Your task to perform on an android device: install app "DoorDash - Food Delivery" Image 0: 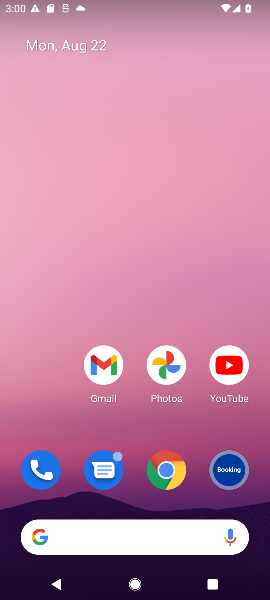
Step 0: drag from (92, 509) to (198, 11)
Your task to perform on an android device: install app "DoorDash - Food Delivery" Image 1: 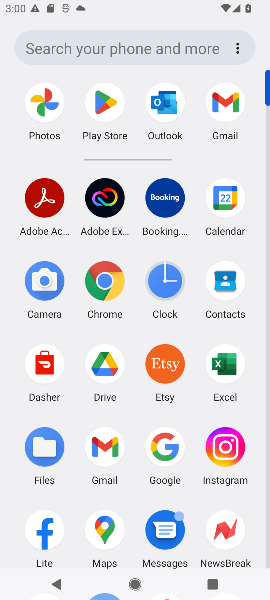
Step 1: drag from (121, 527) to (117, 91)
Your task to perform on an android device: install app "DoorDash - Food Delivery" Image 2: 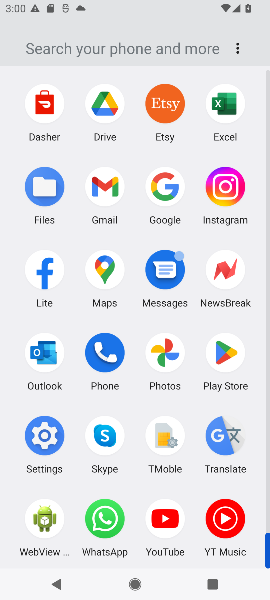
Step 2: drag from (106, 502) to (124, 165)
Your task to perform on an android device: install app "DoorDash - Food Delivery" Image 3: 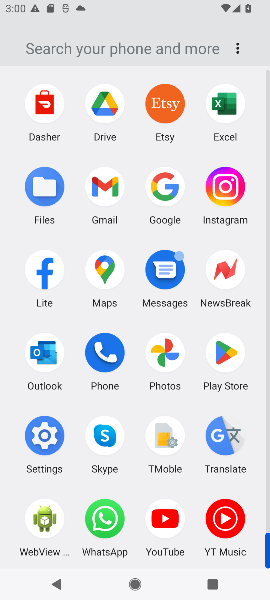
Step 3: drag from (112, 92) to (125, 571)
Your task to perform on an android device: install app "DoorDash - Food Delivery" Image 4: 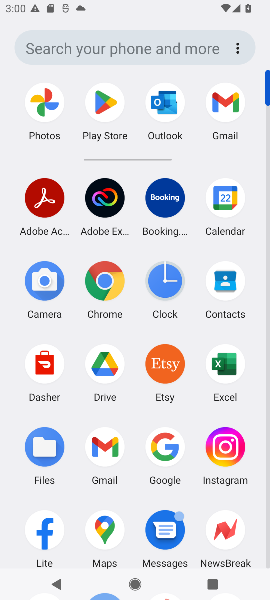
Step 4: drag from (130, 105) to (119, 362)
Your task to perform on an android device: install app "DoorDash - Food Delivery" Image 5: 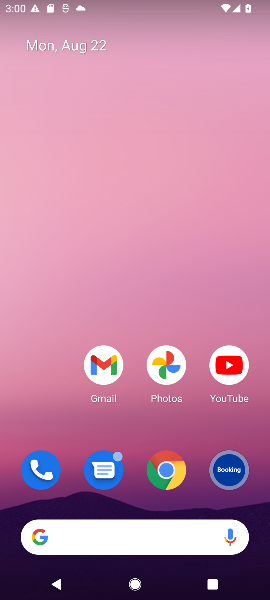
Step 5: drag from (131, 518) to (132, 102)
Your task to perform on an android device: install app "DoorDash - Food Delivery" Image 6: 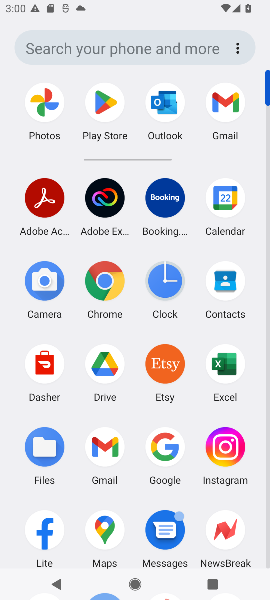
Step 6: click (101, 91)
Your task to perform on an android device: install app "DoorDash - Food Delivery" Image 7: 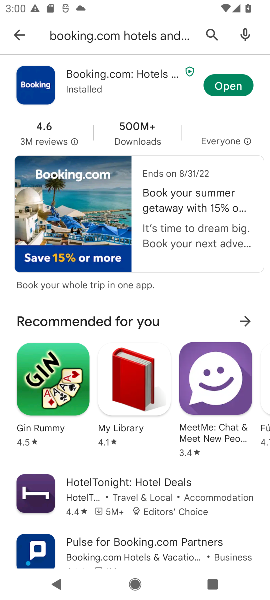
Step 7: click (20, 30)
Your task to perform on an android device: install app "DoorDash - Food Delivery" Image 8: 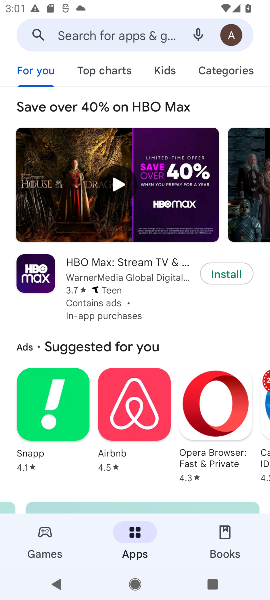
Step 8: click (97, 31)
Your task to perform on an android device: install app "DoorDash - Food Delivery" Image 9: 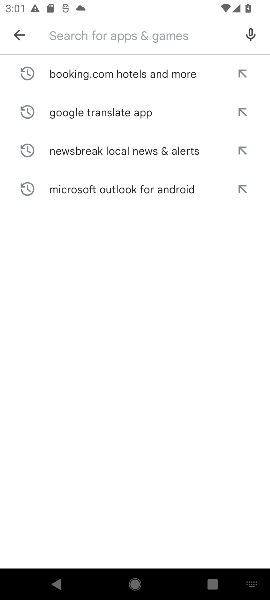
Step 9: type "DoorDash  "
Your task to perform on an android device: install app "DoorDash - Food Delivery" Image 10: 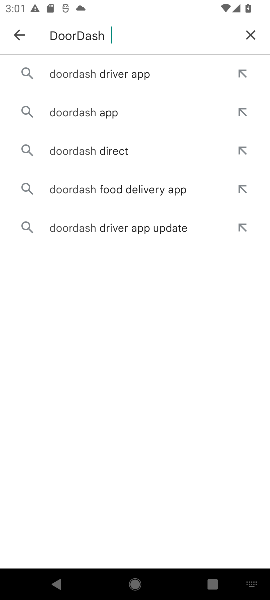
Step 10: click (94, 111)
Your task to perform on an android device: install app "DoorDash - Food Delivery" Image 11: 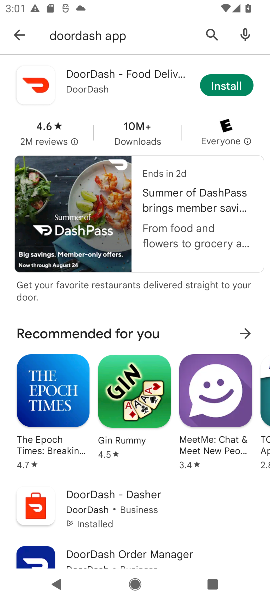
Step 11: click (232, 84)
Your task to perform on an android device: install app "DoorDash - Food Delivery" Image 12: 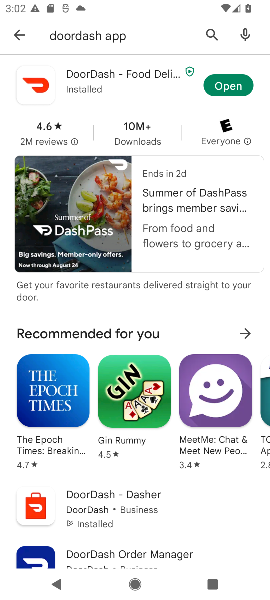
Step 12: click (231, 80)
Your task to perform on an android device: install app "DoorDash - Food Delivery" Image 13: 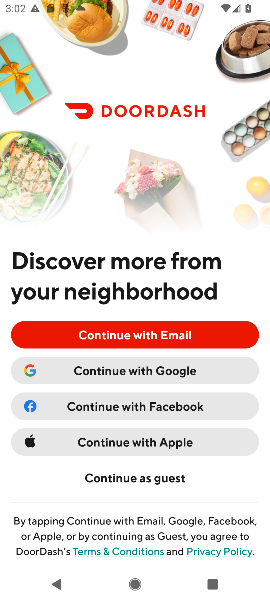
Step 13: task complete